Your task to perform on an android device: toggle javascript in the chrome app Image 0: 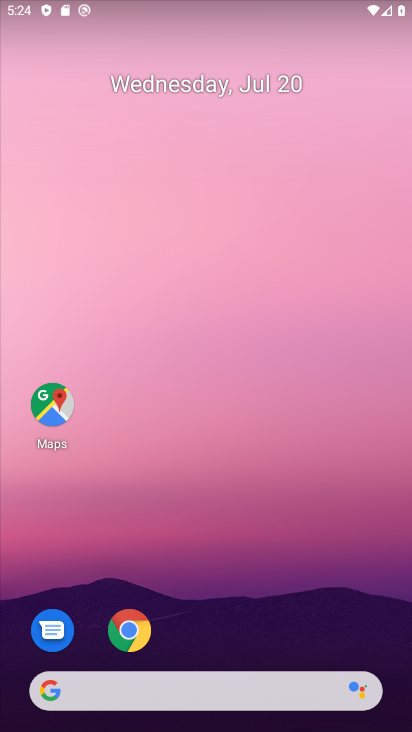
Step 0: drag from (309, 676) to (353, 6)
Your task to perform on an android device: toggle javascript in the chrome app Image 1: 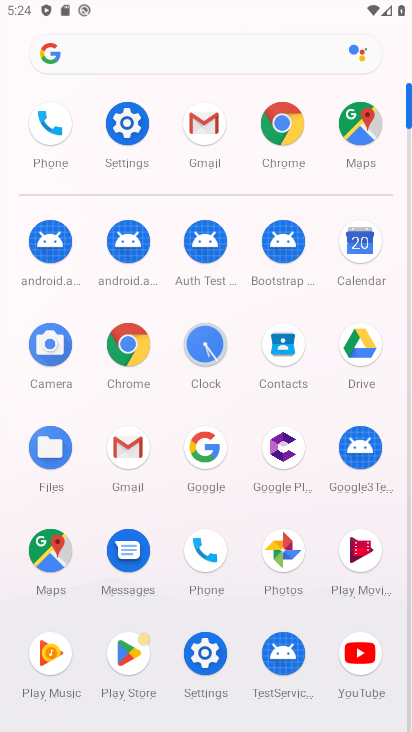
Step 1: click (125, 334)
Your task to perform on an android device: toggle javascript in the chrome app Image 2: 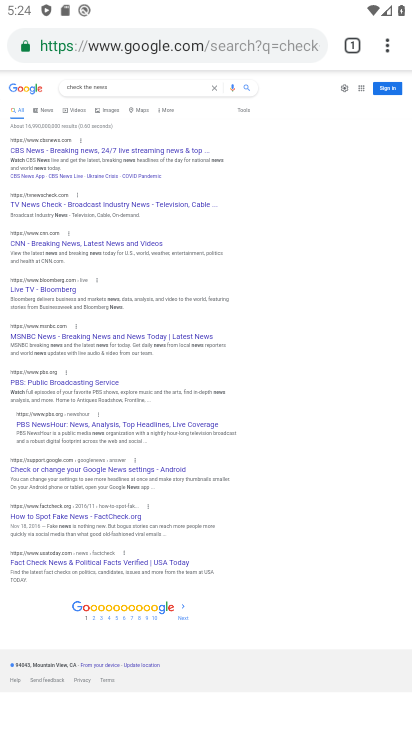
Step 2: drag from (381, 38) to (271, 552)
Your task to perform on an android device: toggle javascript in the chrome app Image 3: 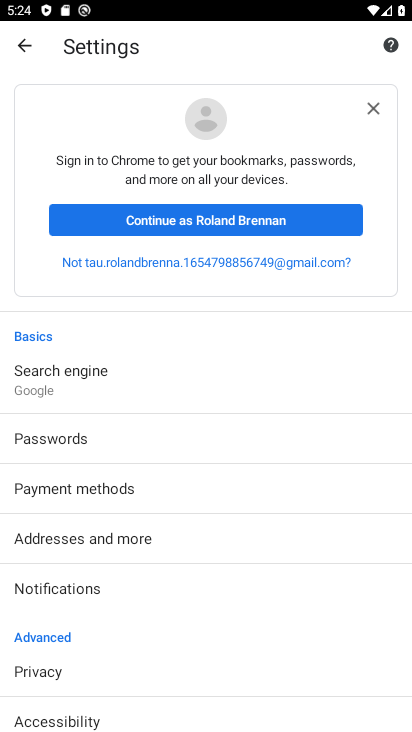
Step 3: drag from (136, 624) to (180, 304)
Your task to perform on an android device: toggle javascript in the chrome app Image 4: 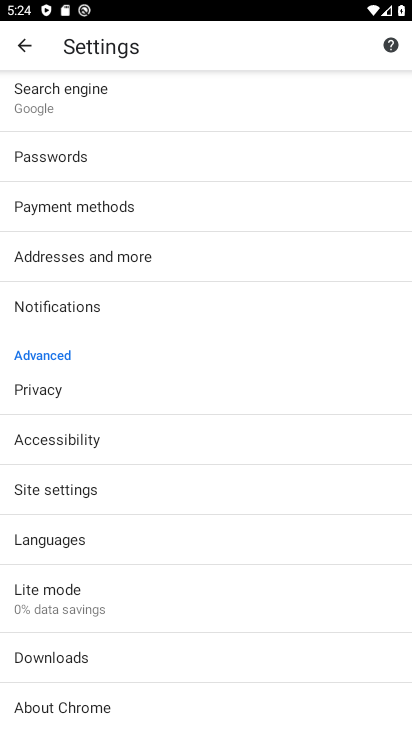
Step 4: click (99, 501)
Your task to perform on an android device: toggle javascript in the chrome app Image 5: 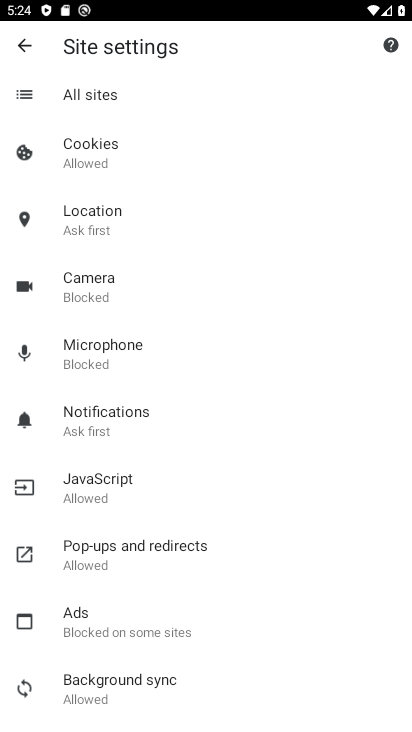
Step 5: click (122, 488)
Your task to perform on an android device: toggle javascript in the chrome app Image 6: 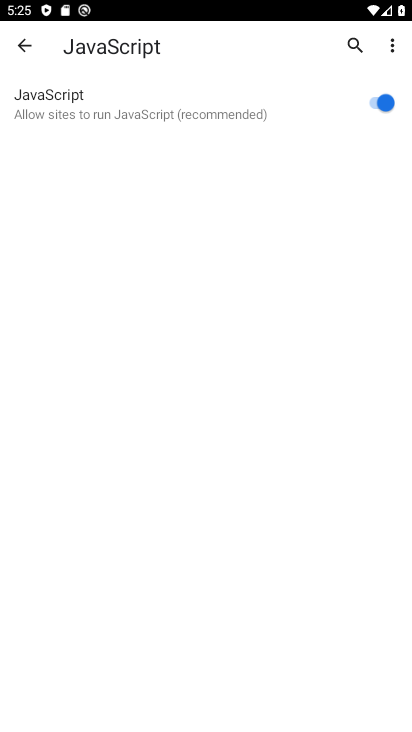
Step 6: click (384, 97)
Your task to perform on an android device: toggle javascript in the chrome app Image 7: 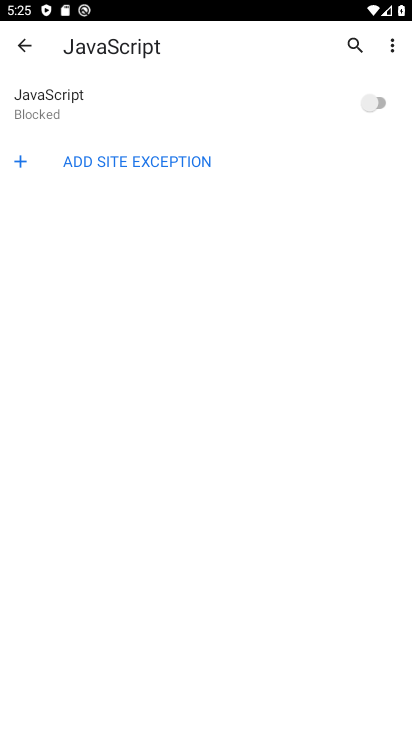
Step 7: task complete